Your task to perform on an android device: Go to Wikipedia Image 0: 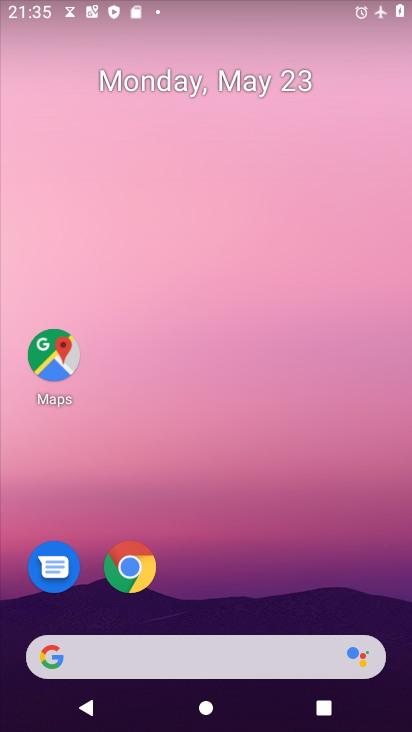
Step 0: drag from (196, 536) to (274, 184)
Your task to perform on an android device: Go to Wikipedia Image 1: 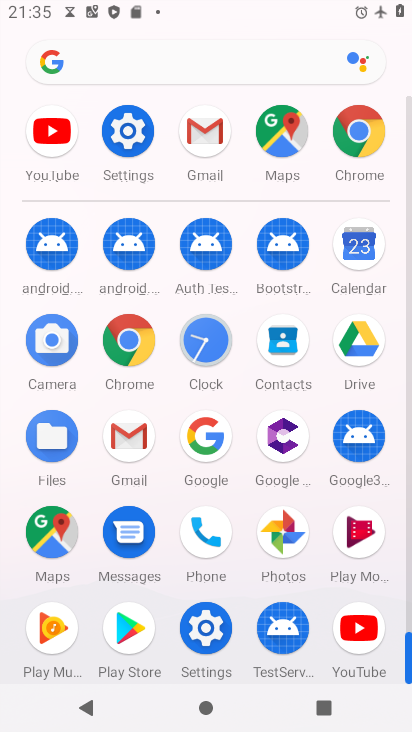
Step 1: click (130, 335)
Your task to perform on an android device: Go to Wikipedia Image 2: 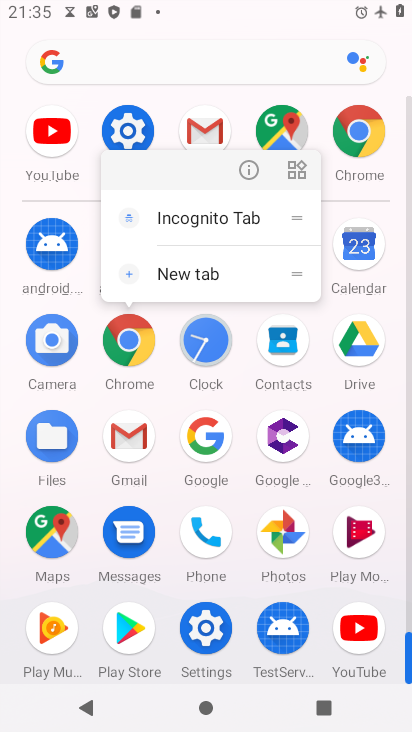
Step 2: click (131, 326)
Your task to perform on an android device: Go to Wikipedia Image 3: 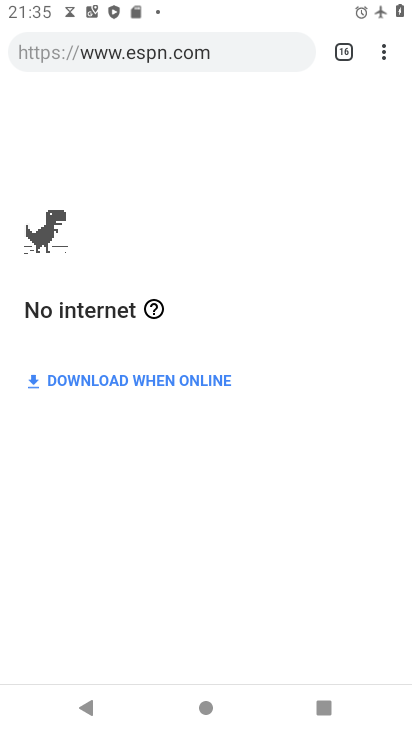
Step 3: click (378, 44)
Your task to perform on an android device: Go to Wikipedia Image 4: 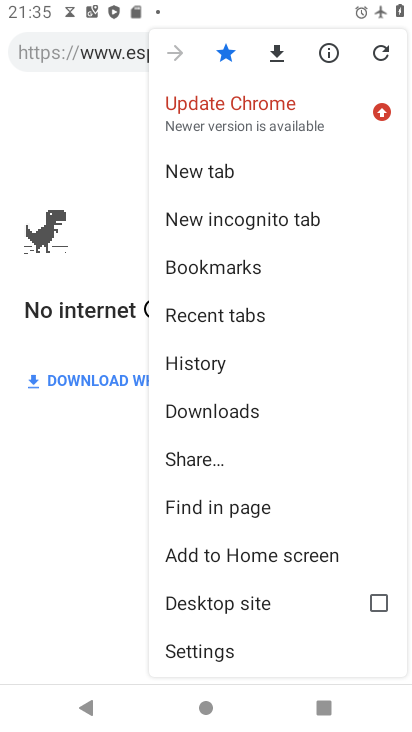
Step 4: click (223, 168)
Your task to perform on an android device: Go to Wikipedia Image 5: 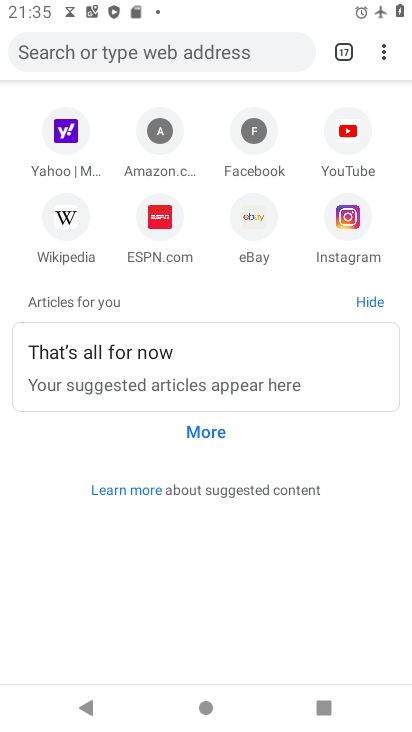
Step 5: click (49, 210)
Your task to perform on an android device: Go to Wikipedia Image 6: 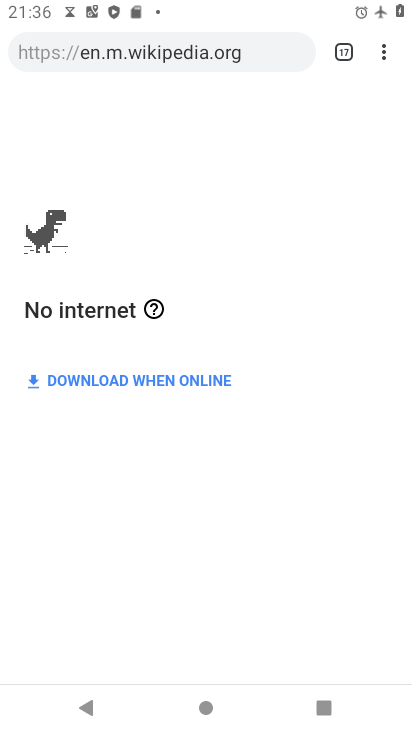
Step 6: task complete